Your task to perform on an android device: toggle priority inbox in the gmail app Image 0: 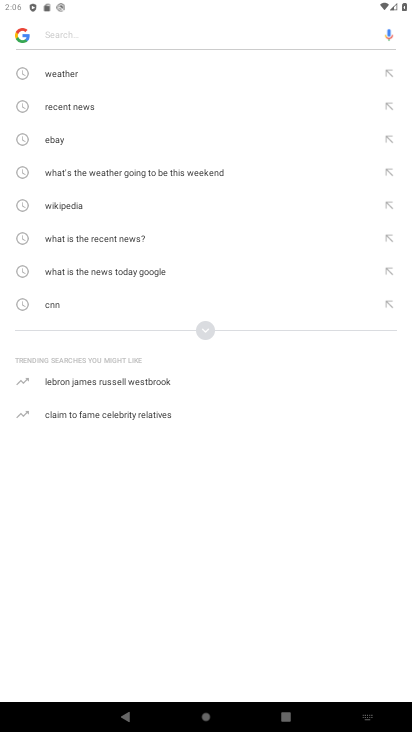
Step 0: press home button
Your task to perform on an android device: toggle priority inbox in the gmail app Image 1: 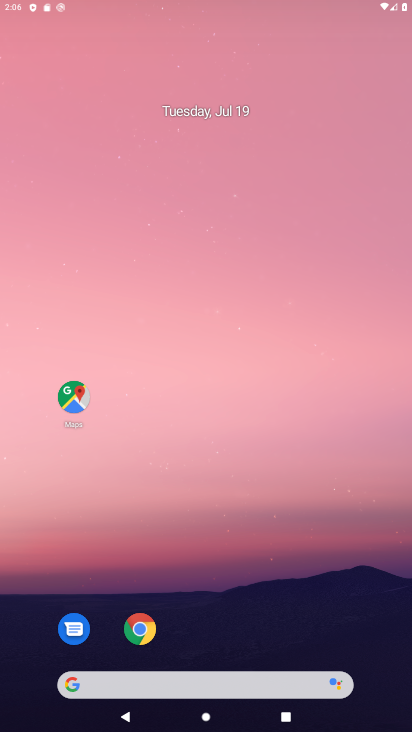
Step 1: drag from (213, 622) to (215, 164)
Your task to perform on an android device: toggle priority inbox in the gmail app Image 2: 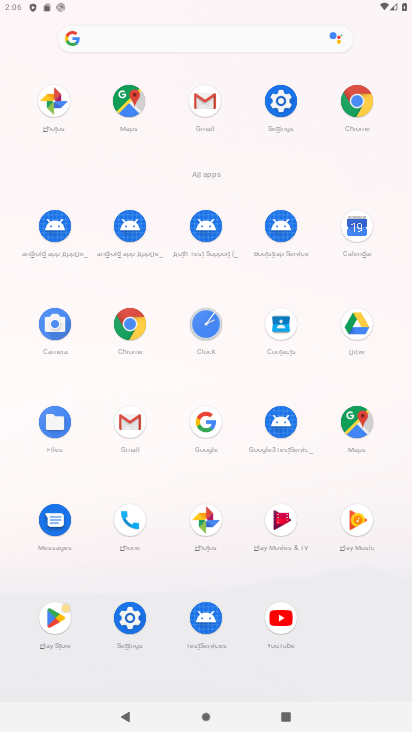
Step 2: click (138, 428)
Your task to perform on an android device: toggle priority inbox in the gmail app Image 3: 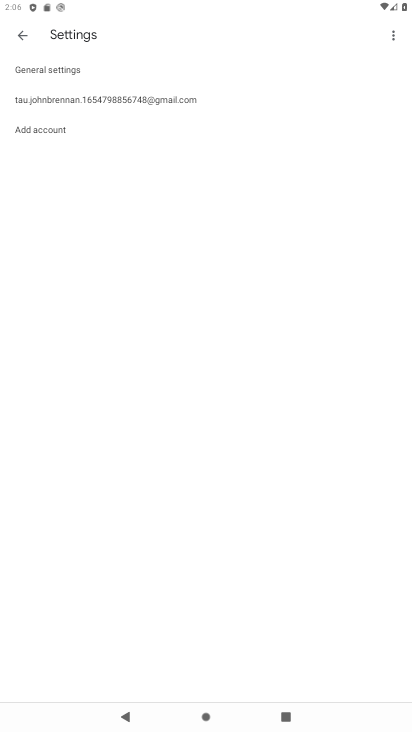
Step 3: click (98, 107)
Your task to perform on an android device: toggle priority inbox in the gmail app Image 4: 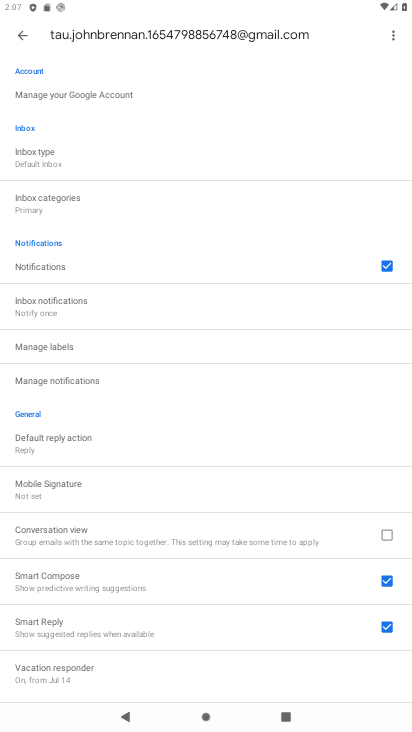
Step 4: click (96, 163)
Your task to perform on an android device: toggle priority inbox in the gmail app Image 5: 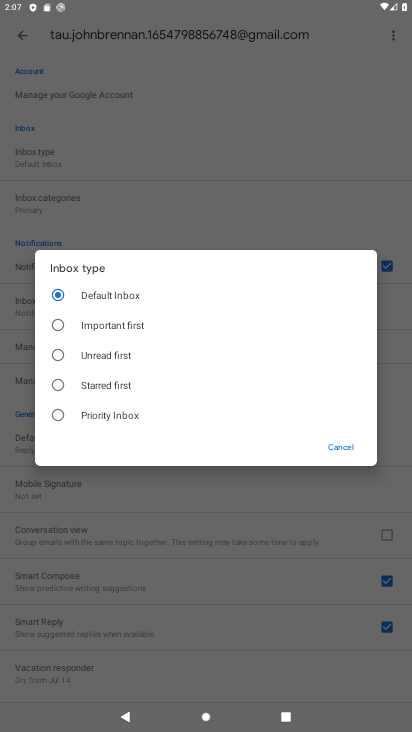
Step 5: click (94, 407)
Your task to perform on an android device: toggle priority inbox in the gmail app Image 6: 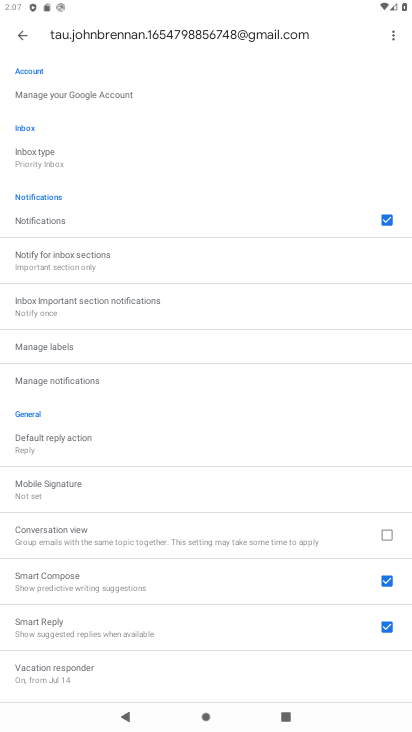
Step 6: task complete